Your task to perform on an android device: Open eBay Image 0: 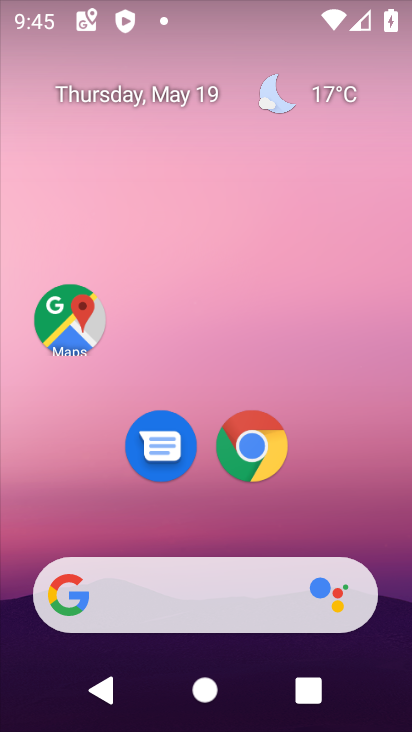
Step 0: click (247, 437)
Your task to perform on an android device: Open eBay Image 1: 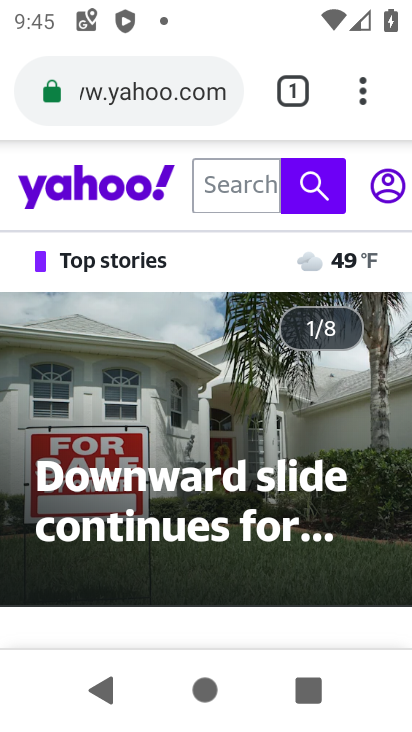
Step 1: click (154, 98)
Your task to perform on an android device: Open eBay Image 2: 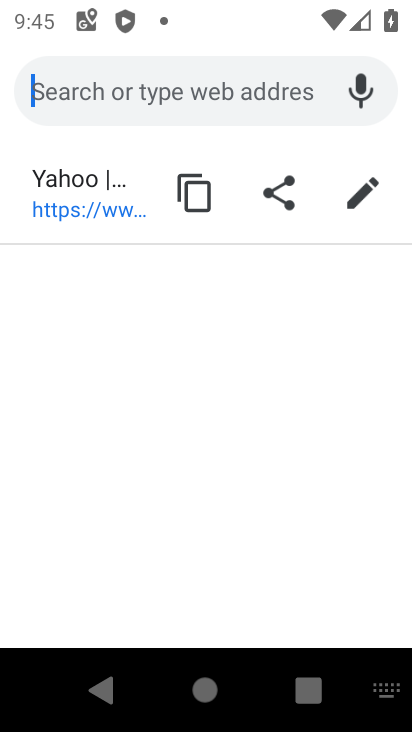
Step 2: type "eBay"
Your task to perform on an android device: Open eBay Image 3: 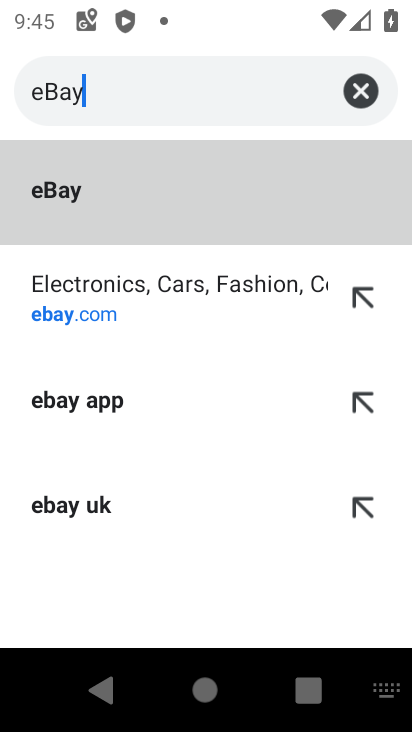
Step 3: click (96, 216)
Your task to perform on an android device: Open eBay Image 4: 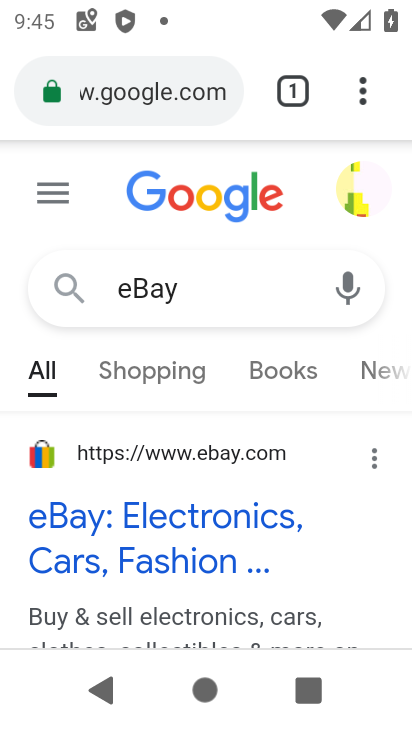
Step 4: task complete